Your task to perform on an android device: turn on data saver in the chrome app Image 0: 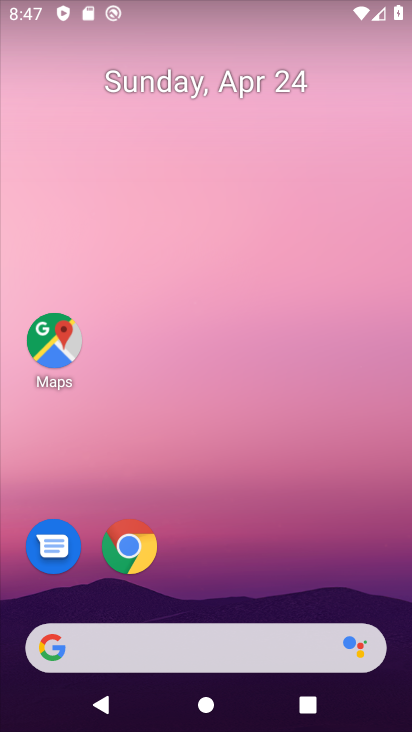
Step 0: drag from (301, 356) to (307, 218)
Your task to perform on an android device: turn on data saver in the chrome app Image 1: 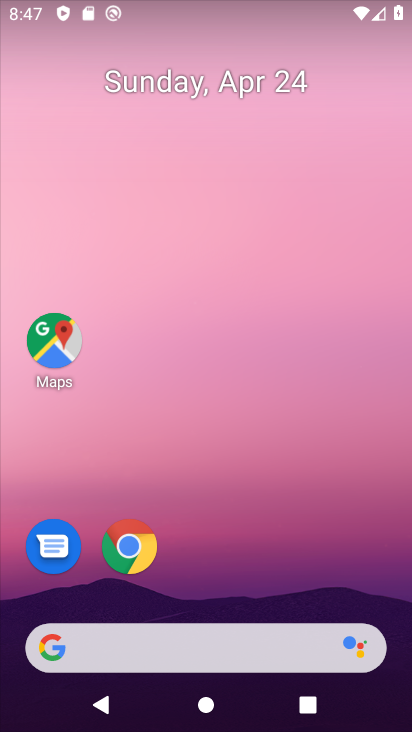
Step 1: drag from (260, 533) to (298, 244)
Your task to perform on an android device: turn on data saver in the chrome app Image 2: 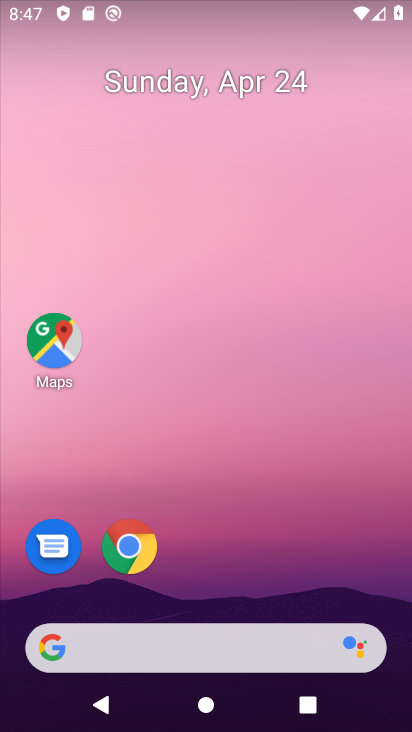
Step 2: drag from (254, 562) to (263, 135)
Your task to perform on an android device: turn on data saver in the chrome app Image 3: 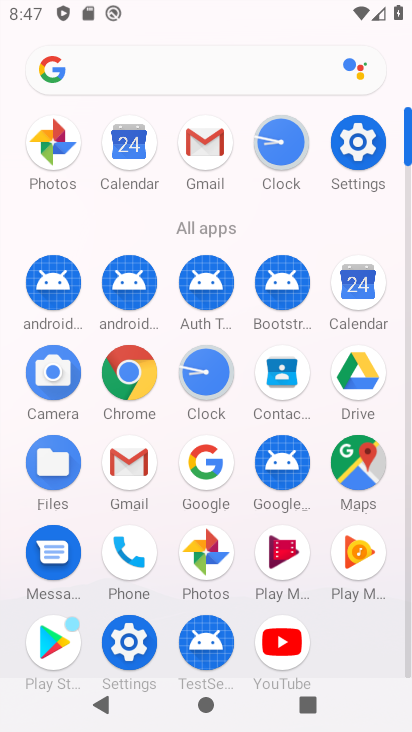
Step 3: click (123, 364)
Your task to perform on an android device: turn on data saver in the chrome app Image 4: 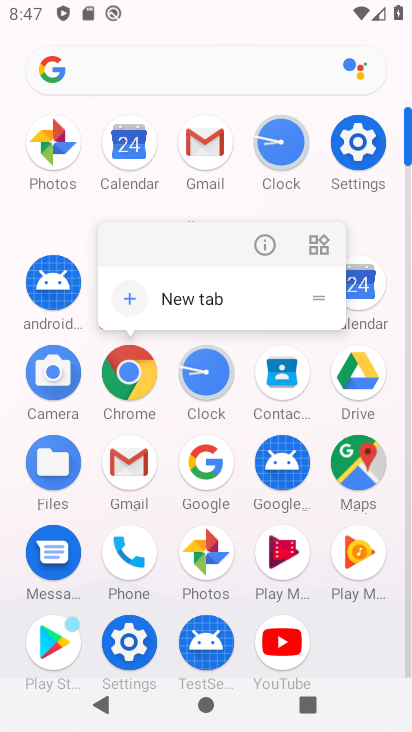
Step 4: click (123, 364)
Your task to perform on an android device: turn on data saver in the chrome app Image 5: 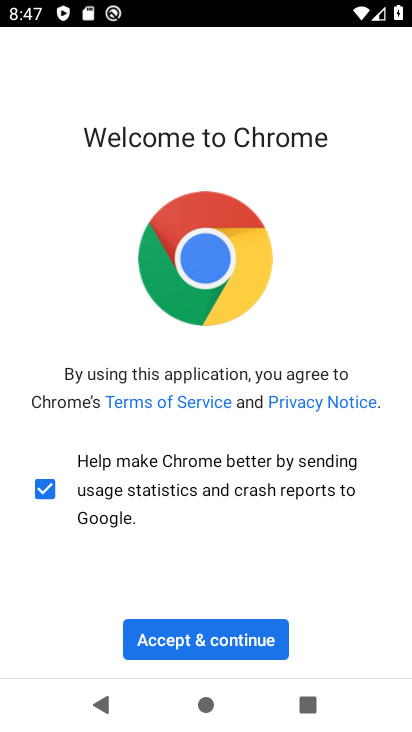
Step 5: click (186, 640)
Your task to perform on an android device: turn on data saver in the chrome app Image 6: 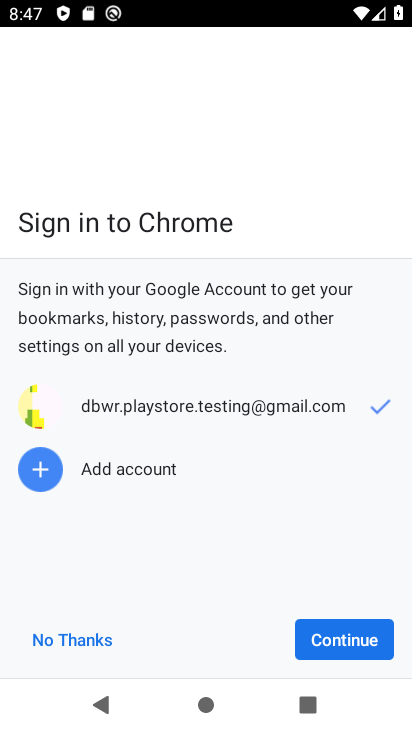
Step 6: click (322, 643)
Your task to perform on an android device: turn on data saver in the chrome app Image 7: 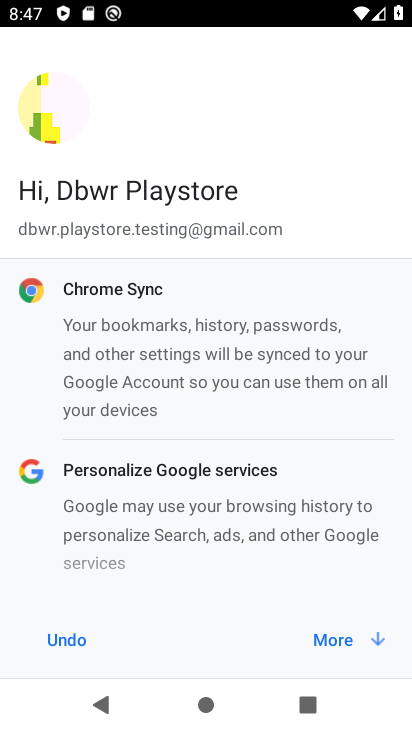
Step 7: click (333, 650)
Your task to perform on an android device: turn on data saver in the chrome app Image 8: 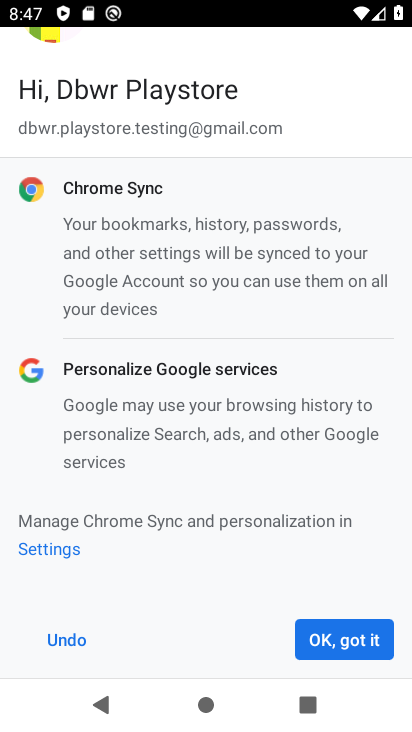
Step 8: click (330, 637)
Your task to perform on an android device: turn on data saver in the chrome app Image 9: 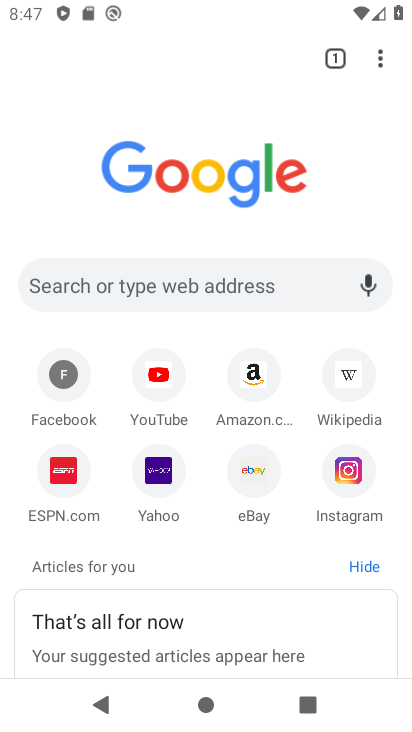
Step 9: click (376, 55)
Your task to perform on an android device: turn on data saver in the chrome app Image 10: 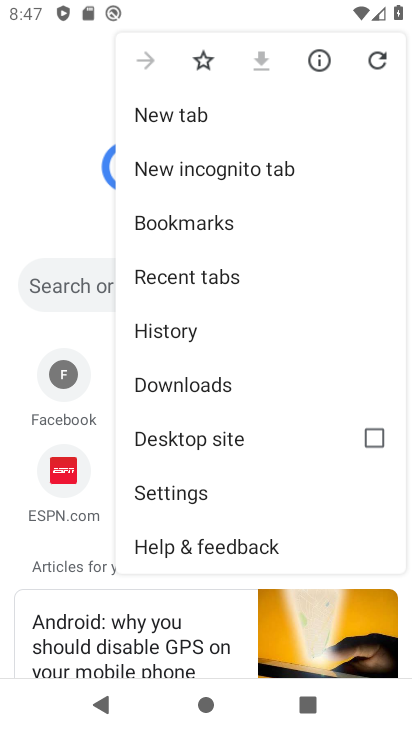
Step 10: click (177, 485)
Your task to perform on an android device: turn on data saver in the chrome app Image 11: 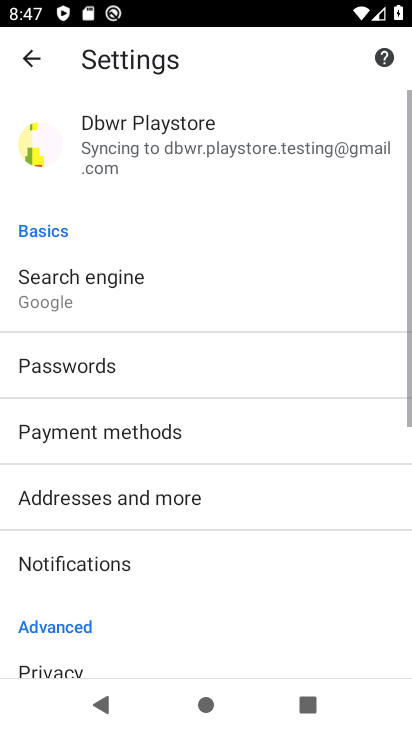
Step 11: drag from (183, 596) to (265, 207)
Your task to perform on an android device: turn on data saver in the chrome app Image 12: 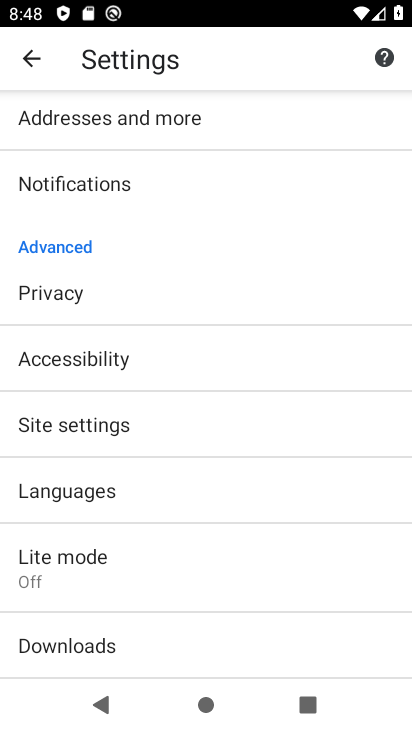
Step 12: click (85, 558)
Your task to perform on an android device: turn on data saver in the chrome app Image 13: 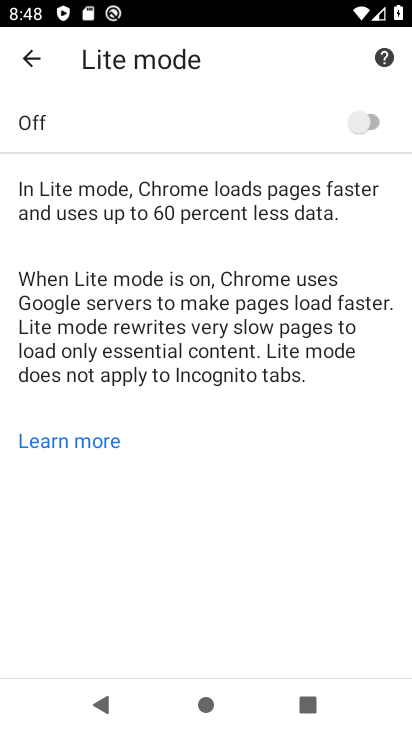
Step 13: click (356, 130)
Your task to perform on an android device: turn on data saver in the chrome app Image 14: 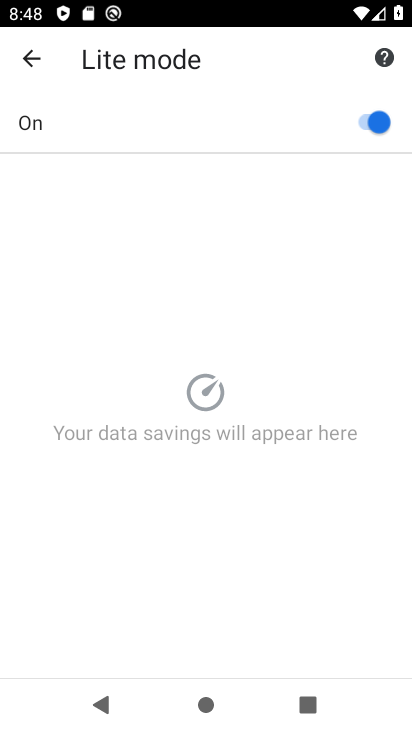
Step 14: task complete